Your task to perform on an android device: see sites visited before in the chrome app Image 0: 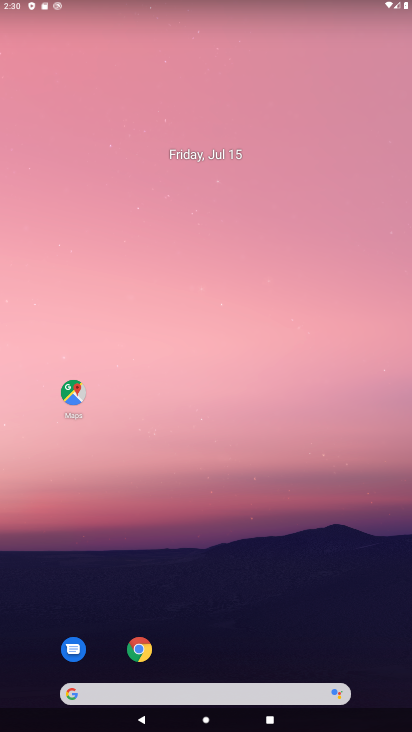
Step 0: drag from (129, 587) to (64, 168)
Your task to perform on an android device: see sites visited before in the chrome app Image 1: 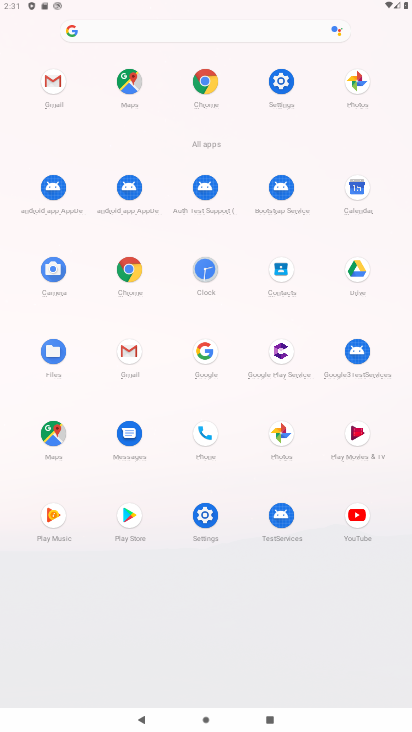
Step 1: click (191, 84)
Your task to perform on an android device: see sites visited before in the chrome app Image 2: 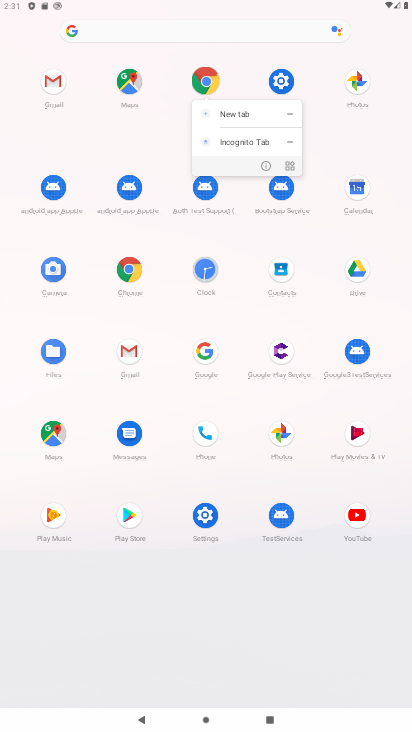
Step 2: click (197, 79)
Your task to perform on an android device: see sites visited before in the chrome app Image 3: 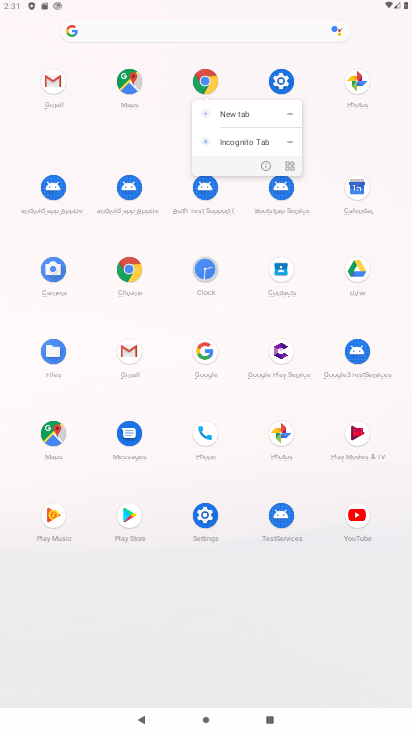
Step 3: click (197, 79)
Your task to perform on an android device: see sites visited before in the chrome app Image 4: 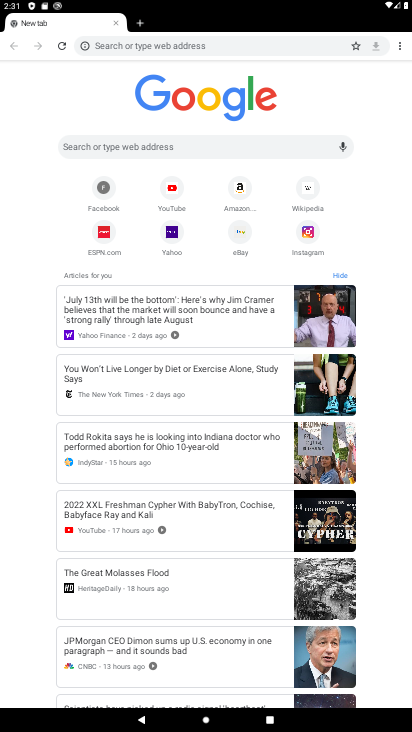
Step 4: drag from (401, 48) to (306, 115)
Your task to perform on an android device: see sites visited before in the chrome app Image 5: 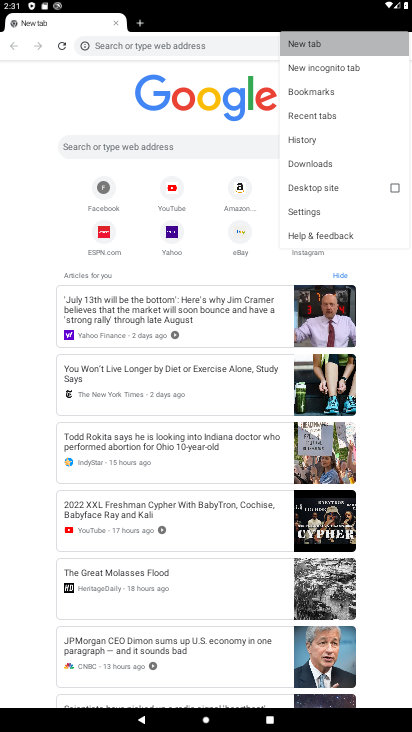
Step 5: click (301, 113)
Your task to perform on an android device: see sites visited before in the chrome app Image 6: 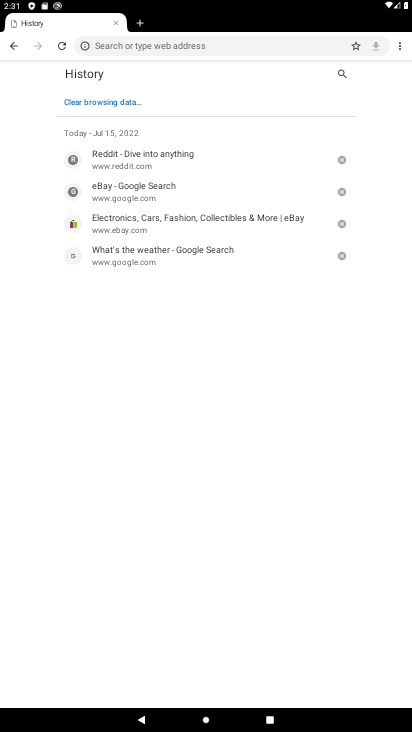
Step 6: task complete